Your task to perform on an android device: Is it going to rain today? Image 0: 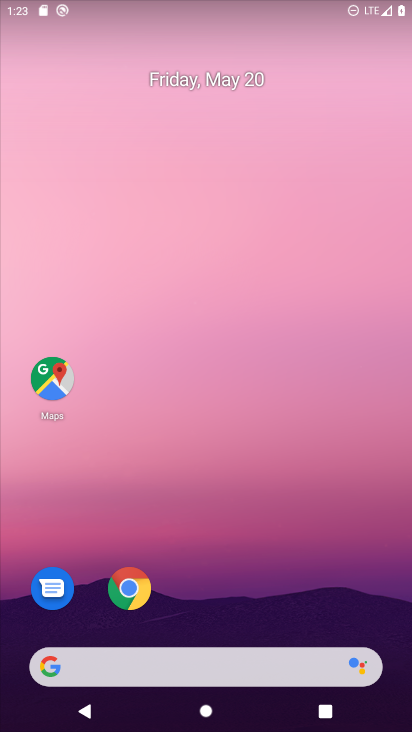
Step 0: drag from (1, 214) to (200, 219)
Your task to perform on an android device: Is it going to rain today? Image 1: 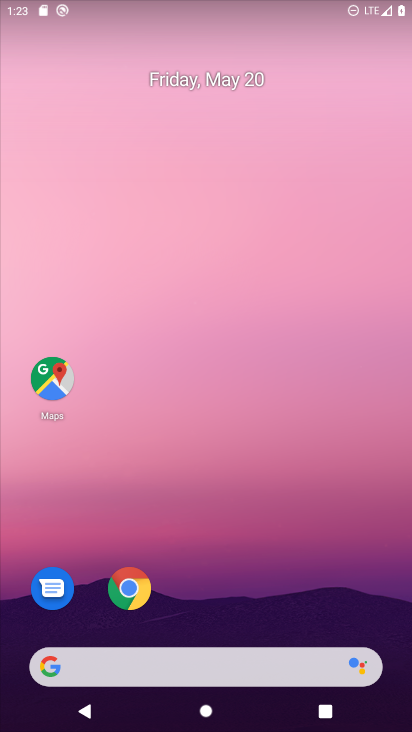
Step 1: drag from (7, 264) to (363, 284)
Your task to perform on an android device: Is it going to rain today? Image 2: 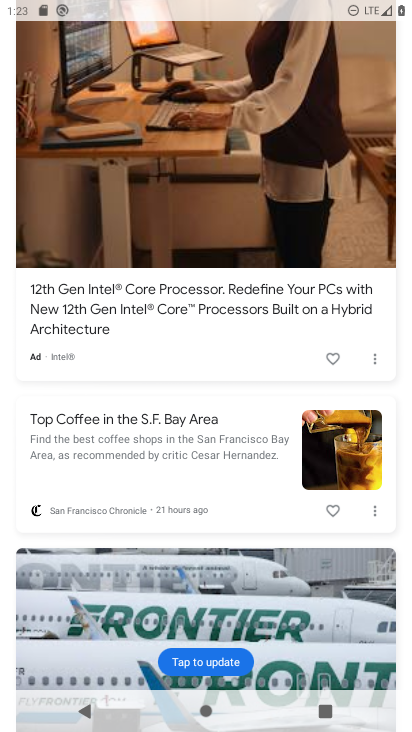
Step 2: drag from (327, 116) to (289, 499)
Your task to perform on an android device: Is it going to rain today? Image 3: 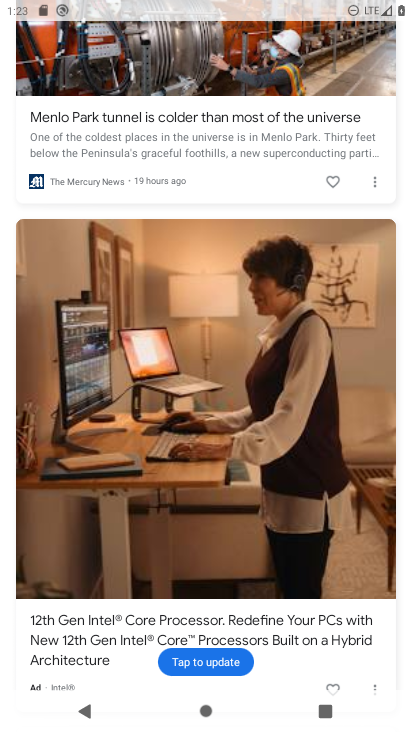
Step 3: drag from (289, 235) to (240, 676)
Your task to perform on an android device: Is it going to rain today? Image 4: 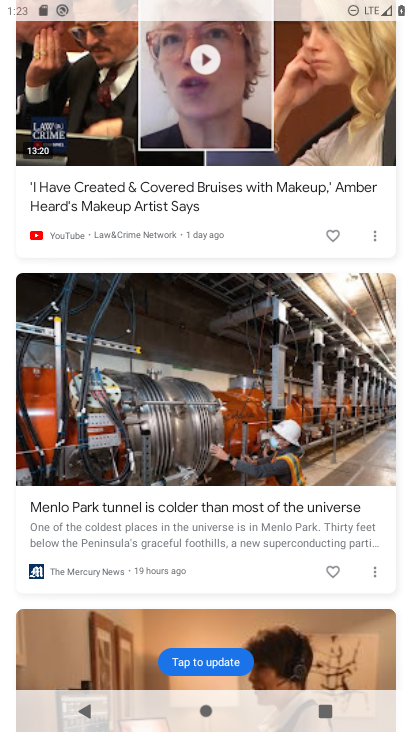
Step 4: drag from (252, 260) to (247, 521)
Your task to perform on an android device: Is it going to rain today? Image 5: 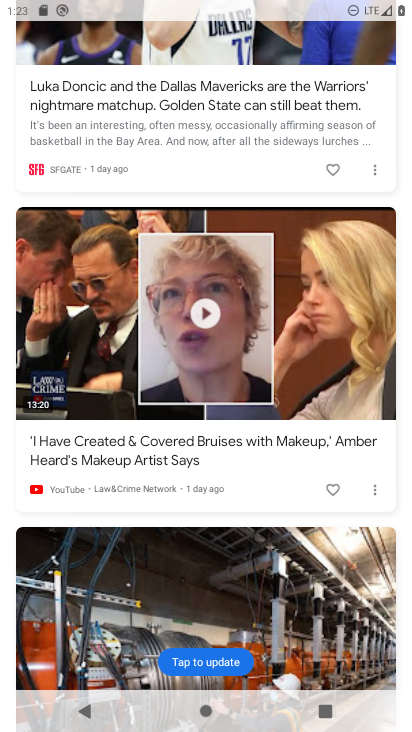
Step 5: drag from (304, 136) to (269, 462)
Your task to perform on an android device: Is it going to rain today? Image 6: 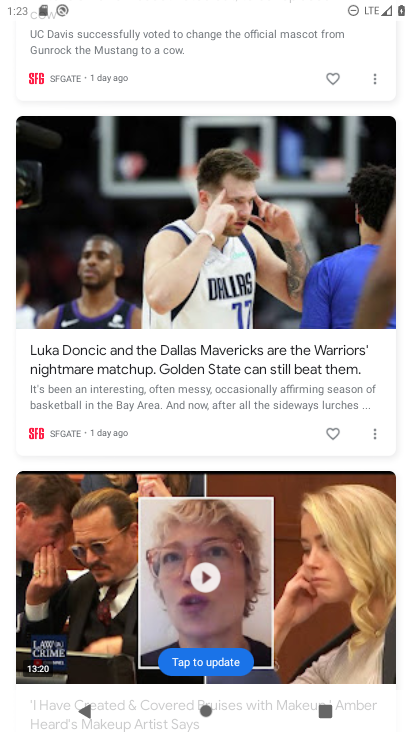
Step 6: drag from (272, 193) to (275, 505)
Your task to perform on an android device: Is it going to rain today? Image 7: 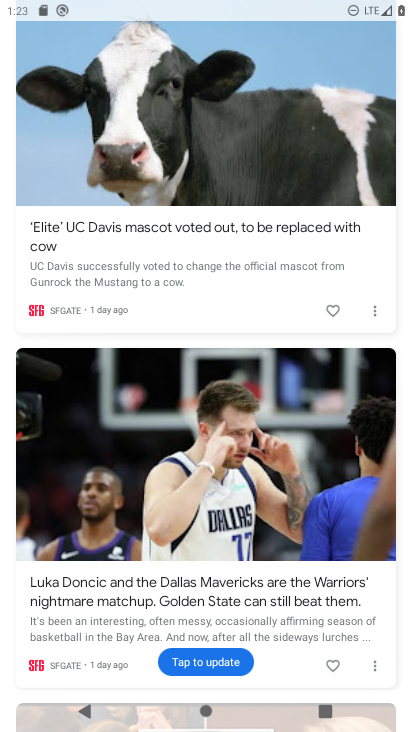
Step 7: drag from (299, 153) to (301, 569)
Your task to perform on an android device: Is it going to rain today? Image 8: 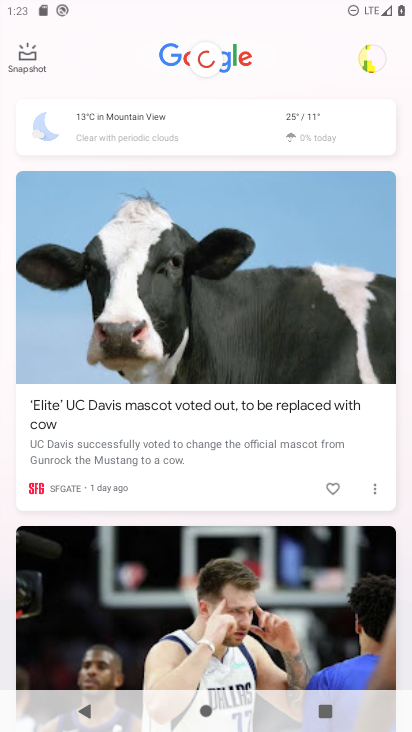
Step 8: click (299, 119)
Your task to perform on an android device: Is it going to rain today? Image 9: 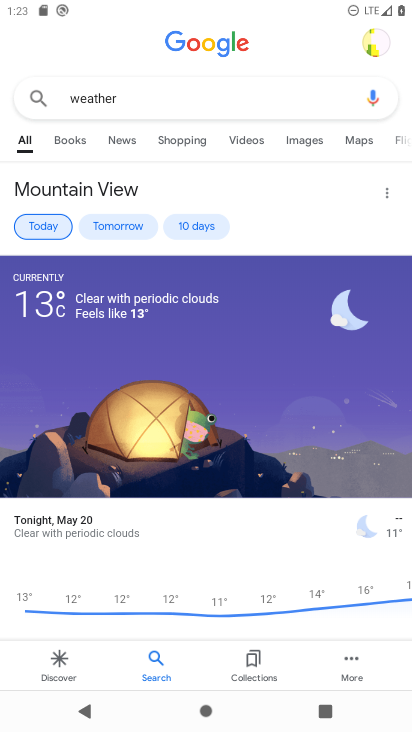
Step 9: task complete